Your task to perform on an android device: manage bookmarks in the chrome app Image 0: 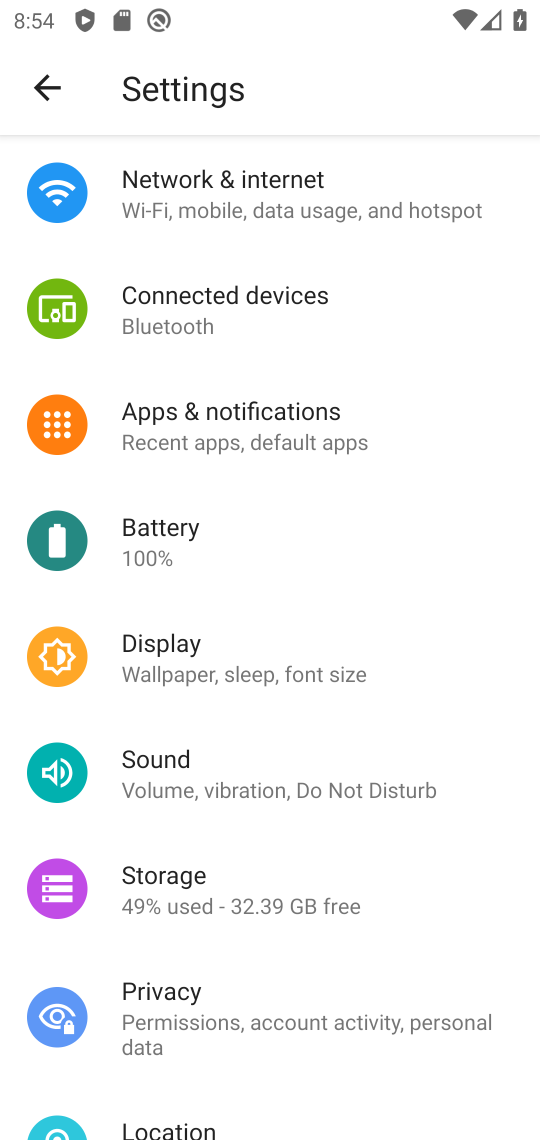
Step 0: press home button
Your task to perform on an android device: manage bookmarks in the chrome app Image 1: 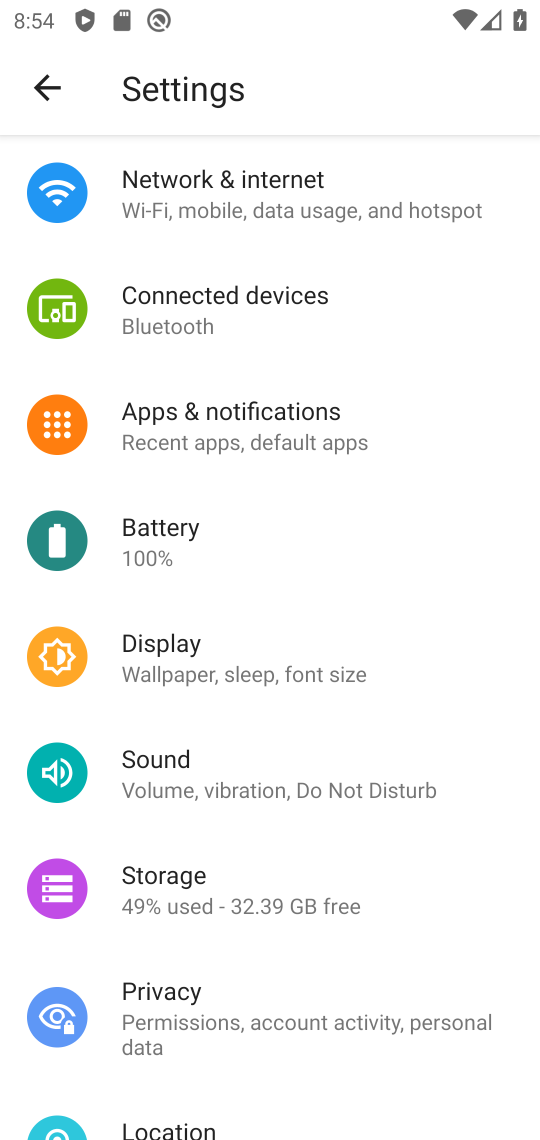
Step 1: press home button
Your task to perform on an android device: manage bookmarks in the chrome app Image 2: 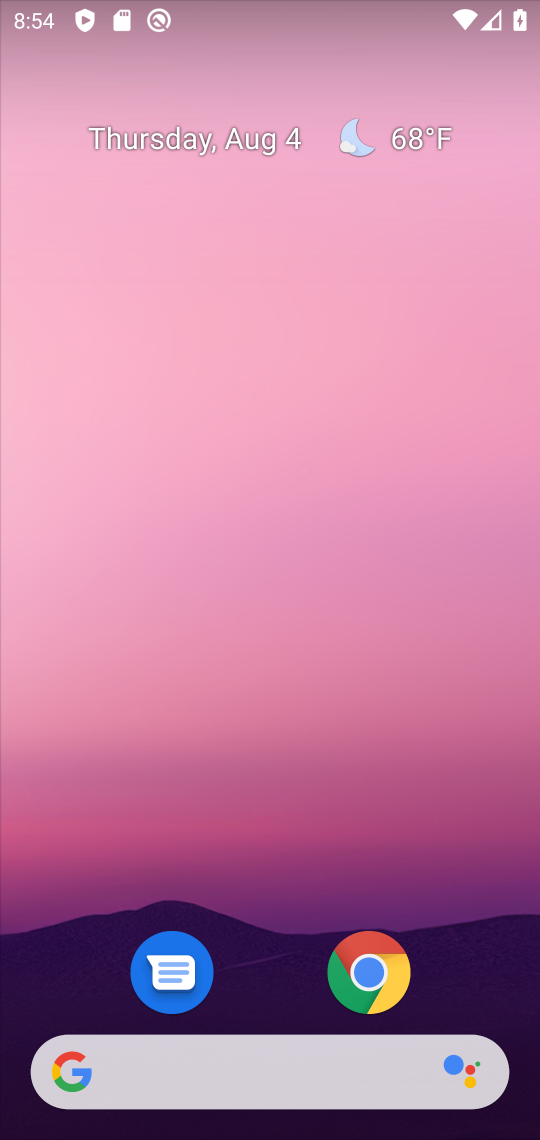
Step 2: click (381, 973)
Your task to perform on an android device: manage bookmarks in the chrome app Image 3: 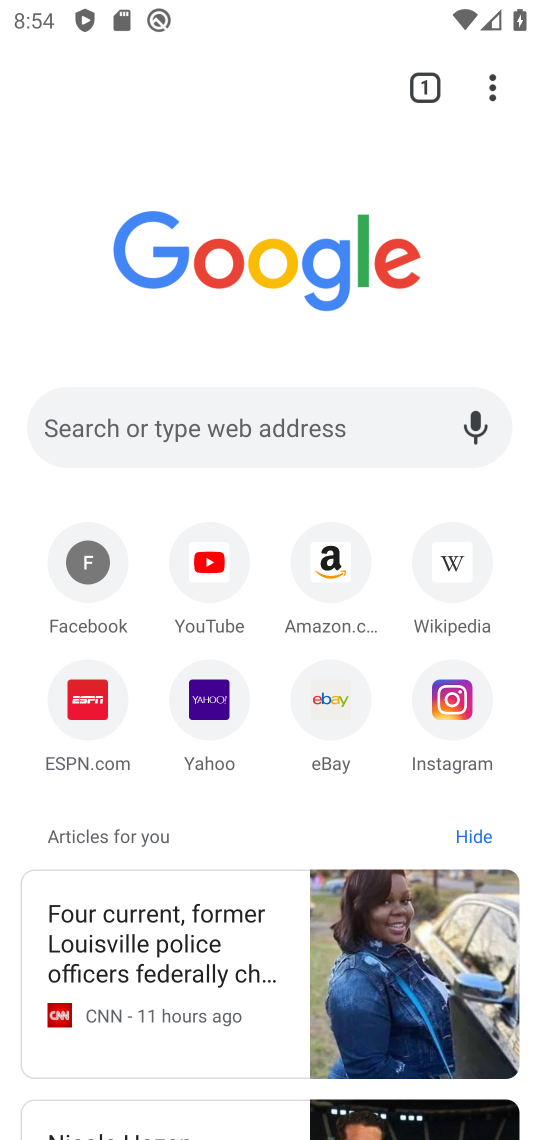
Step 3: click (492, 95)
Your task to perform on an android device: manage bookmarks in the chrome app Image 4: 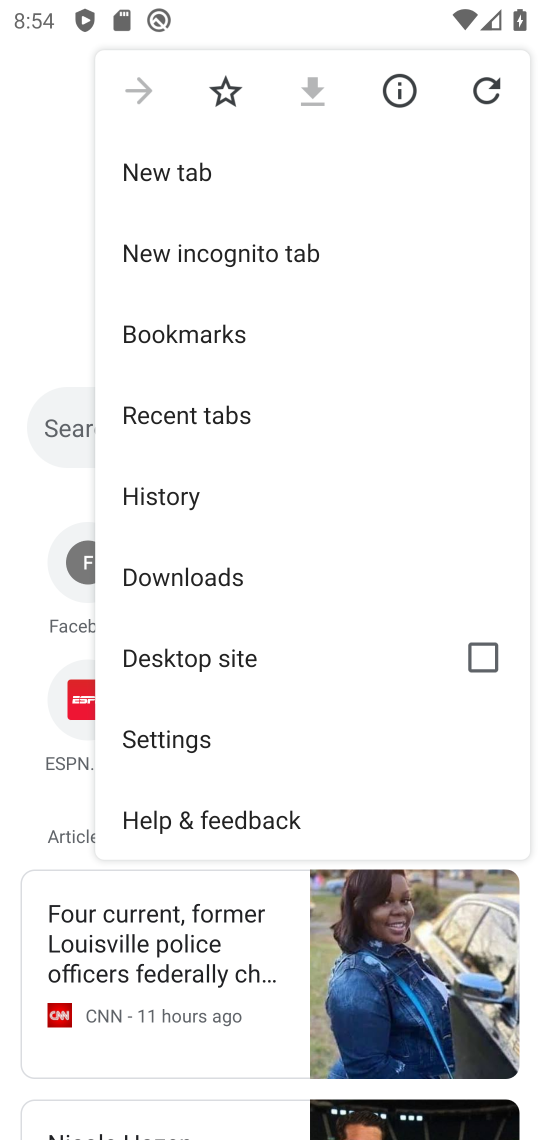
Step 4: click (258, 323)
Your task to perform on an android device: manage bookmarks in the chrome app Image 5: 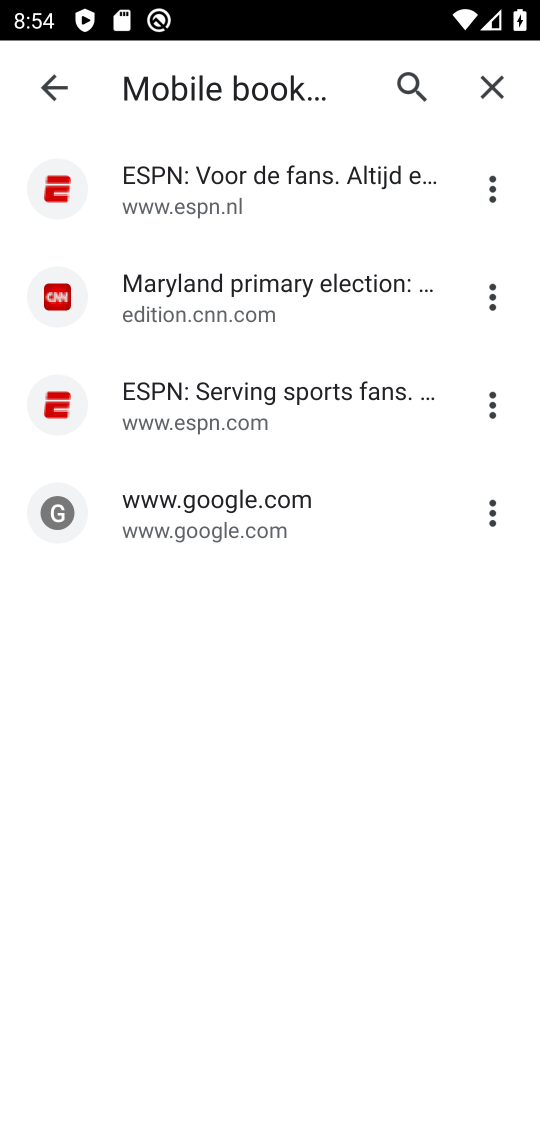
Step 5: click (495, 288)
Your task to perform on an android device: manage bookmarks in the chrome app Image 6: 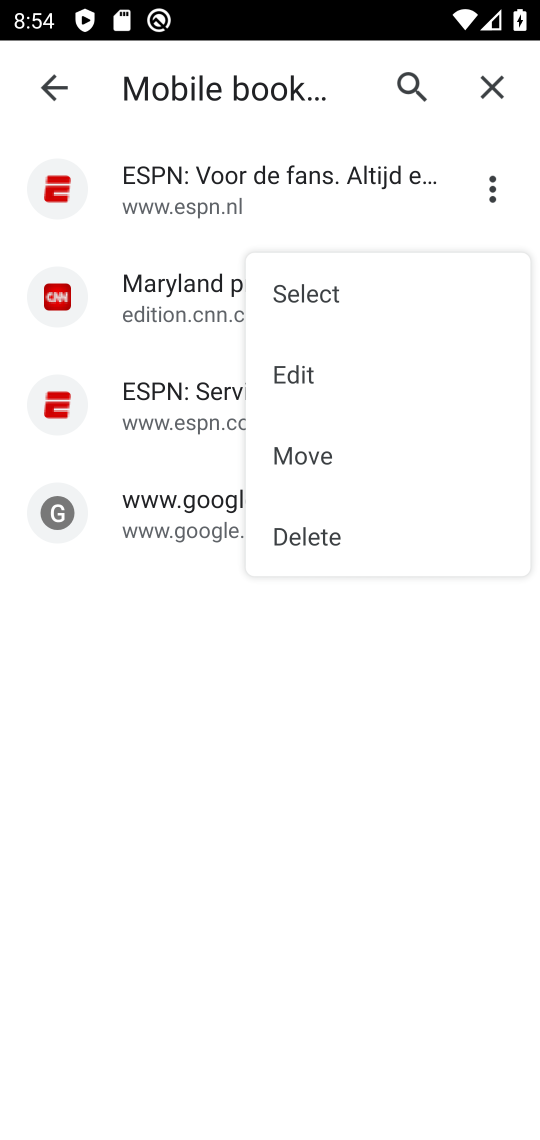
Step 6: click (335, 376)
Your task to perform on an android device: manage bookmarks in the chrome app Image 7: 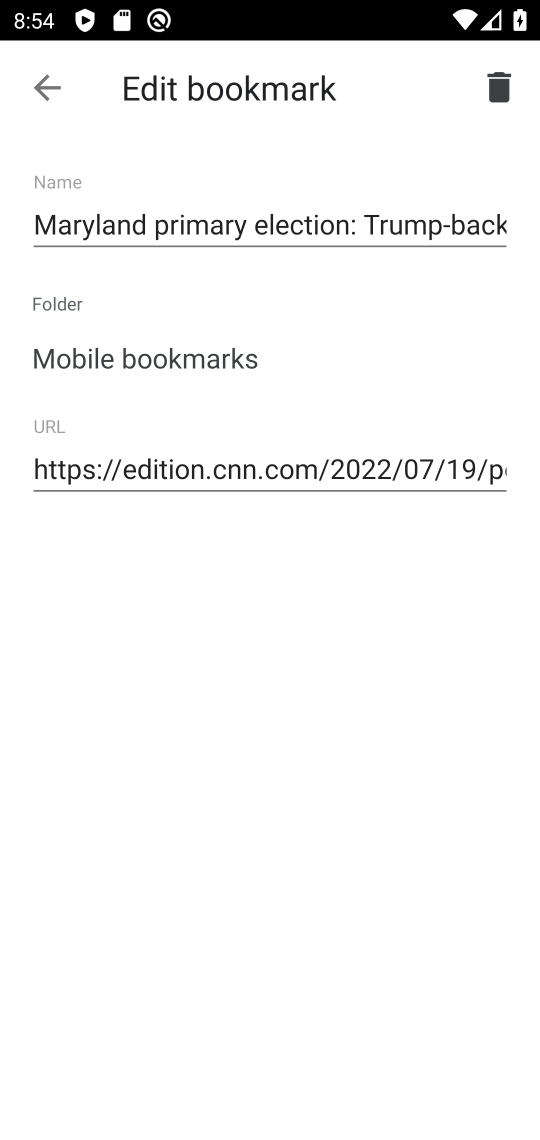
Step 7: task complete